Your task to perform on an android device: Check the news Image 0: 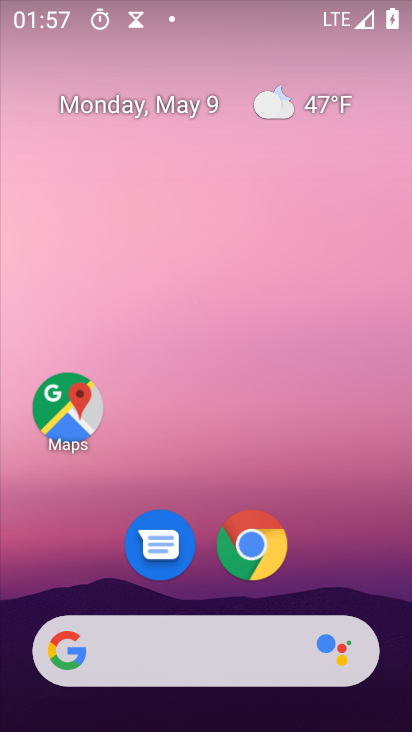
Step 0: drag from (311, 614) to (408, 491)
Your task to perform on an android device: Check the news Image 1: 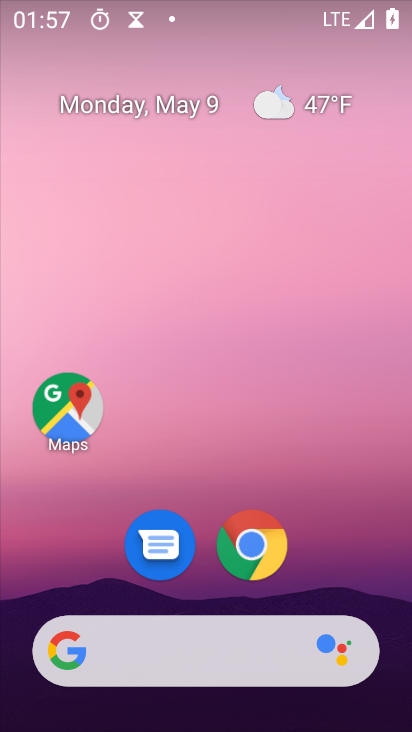
Step 1: drag from (320, 608) to (326, 1)
Your task to perform on an android device: Check the news Image 2: 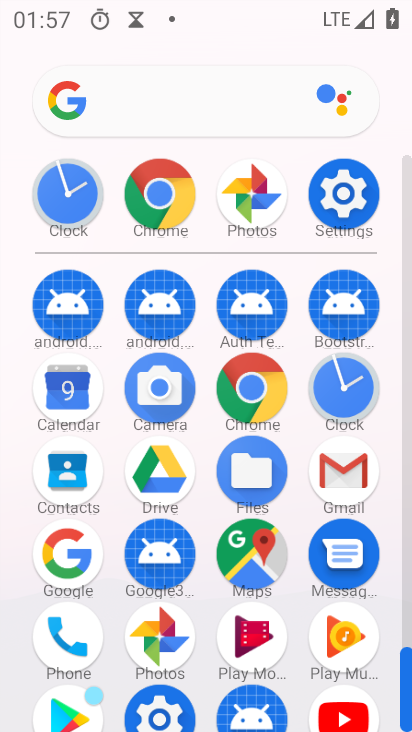
Step 2: click (253, 382)
Your task to perform on an android device: Check the news Image 3: 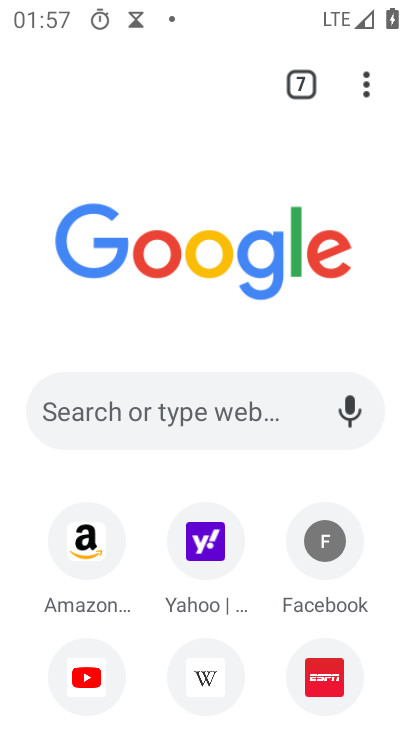
Step 3: click (220, 410)
Your task to perform on an android device: Check the news Image 4: 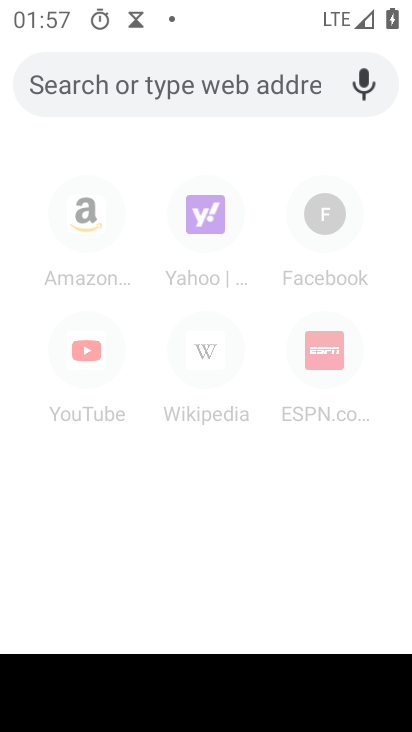
Step 4: type "news"
Your task to perform on an android device: Check the news Image 5: 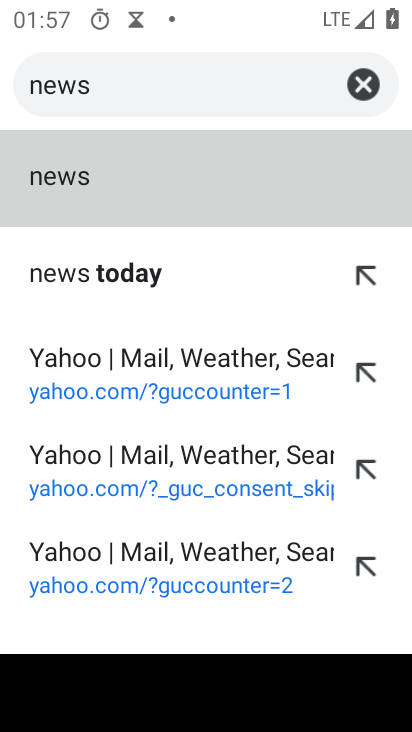
Step 5: click (120, 183)
Your task to perform on an android device: Check the news Image 6: 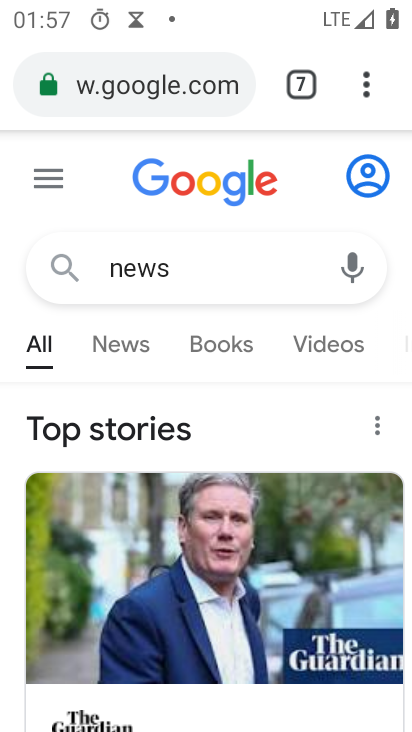
Step 6: task complete